Your task to perform on an android device: Open ESPN.com Image 0: 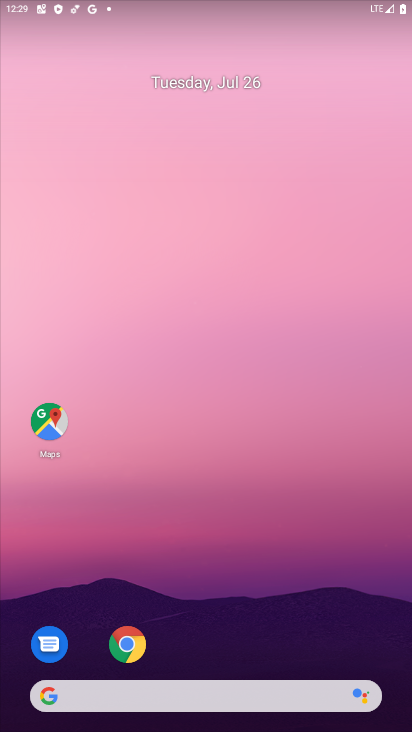
Step 0: click (126, 645)
Your task to perform on an android device: Open ESPN.com Image 1: 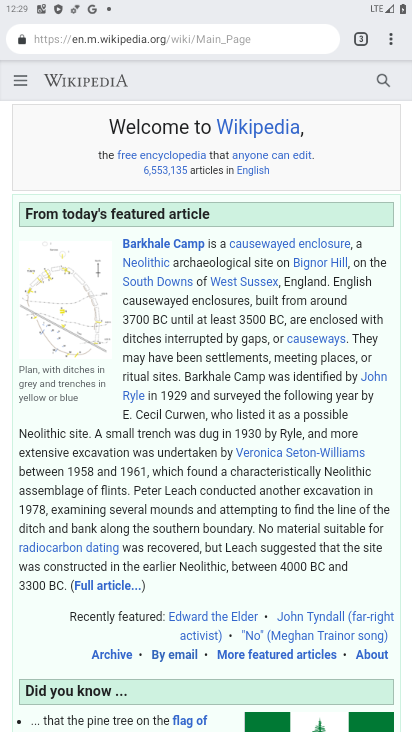
Step 1: click (263, 35)
Your task to perform on an android device: Open ESPN.com Image 2: 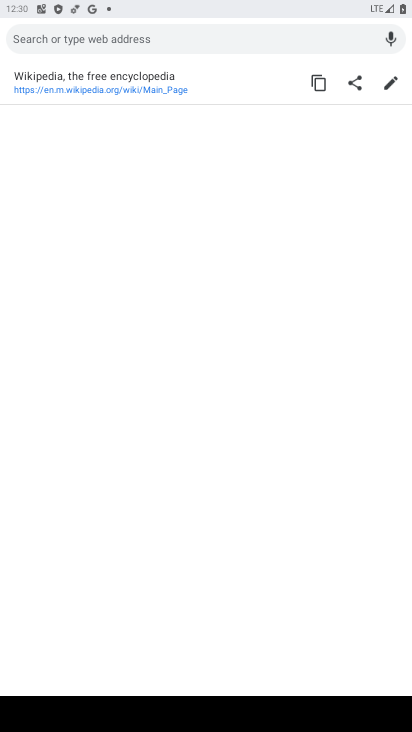
Step 2: type "espn.com"
Your task to perform on an android device: Open ESPN.com Image 3: 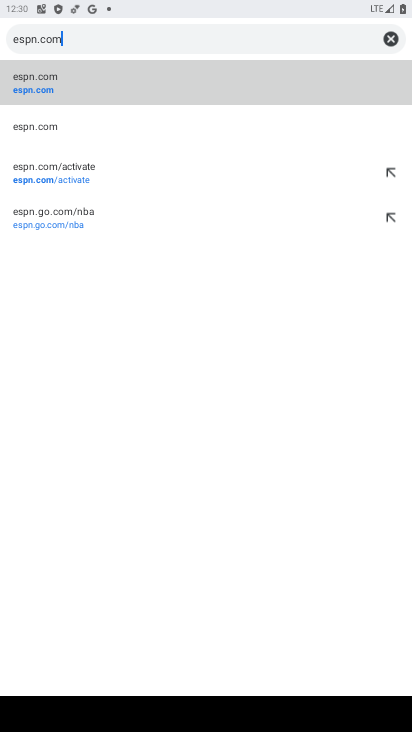
Step 3: click (38, 90)
Your task to perform on an android device: Open ESPN.com Image 4: 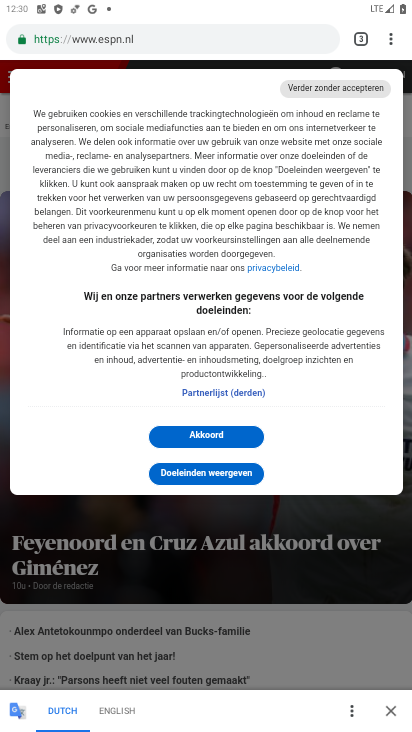
Step 4: task complete